Your task to perform on an android device: Open Youtube and go to the subscriptions tab Image 0: 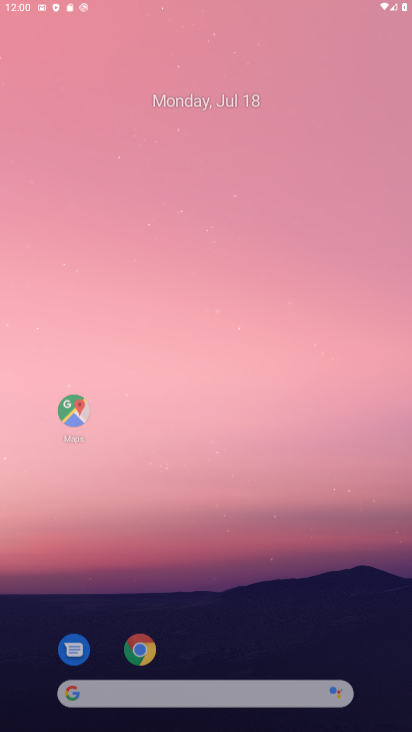
Step 0: drag from (249, 672) to (322, 13)
Your task to perform on an android device: Open Youtube and go to the subscriptions tab Image 1: 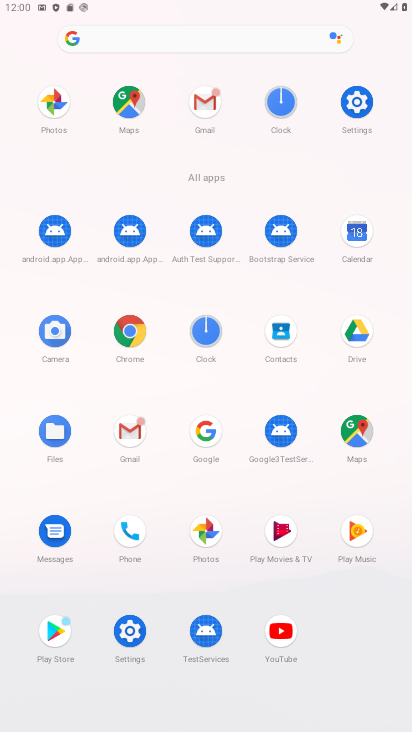
Step 1: click (288, 642)
Your task to perform on an android device: Open Youtube and go to the subscriptions tab Image 2: 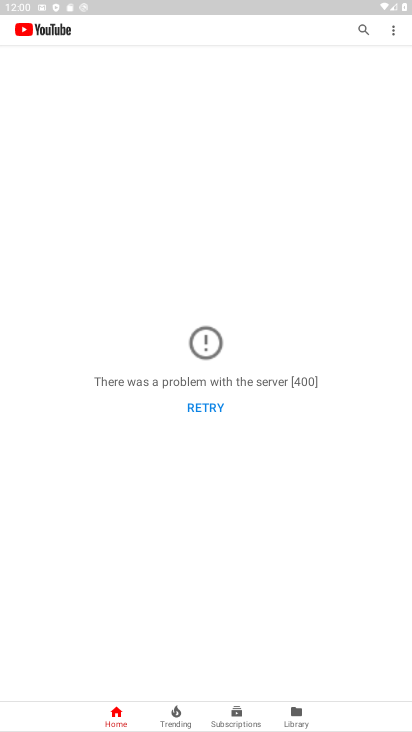
Step 2: click (235, 717)
Your task to perform on an android device: Open Youtube and go to the subscriptions tab Image 3: 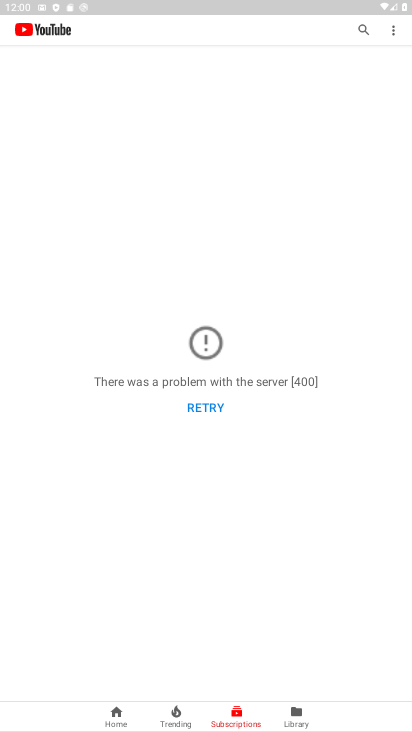
Step 3: task complete